Your task to perform on an android device: Open Youtube and go to the subscriptions tab Image 0: 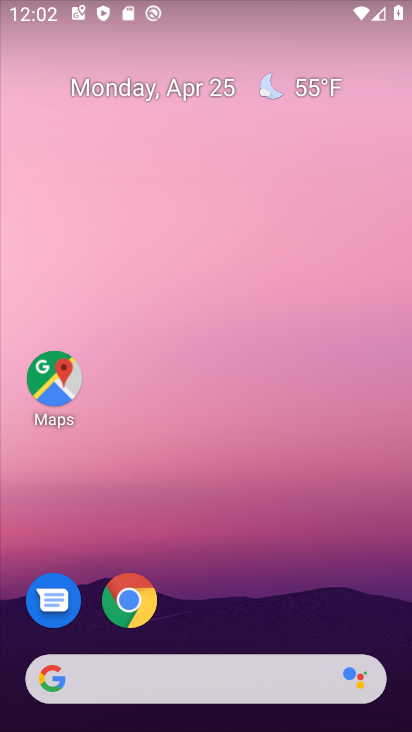
Step 0: drag from (243, 639) to (255, 193)
Your task to perform on an android device: Open Youtube and go to the subscriptions tab Image 1: 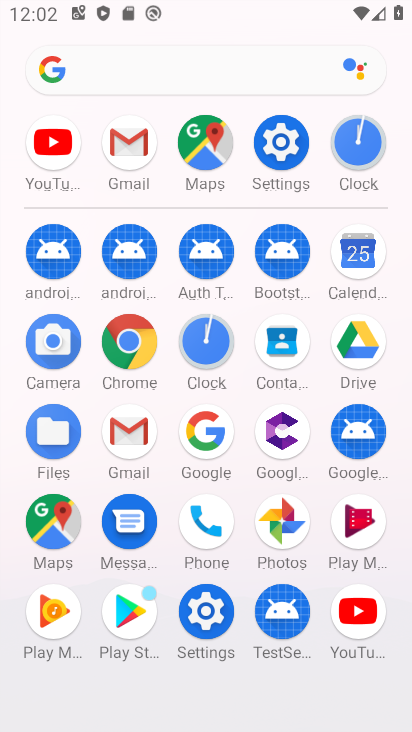
Step 1: click (368, 604)
Your task to perform on an android device: Open Youtube and go to the subscriptions tab Image 2: 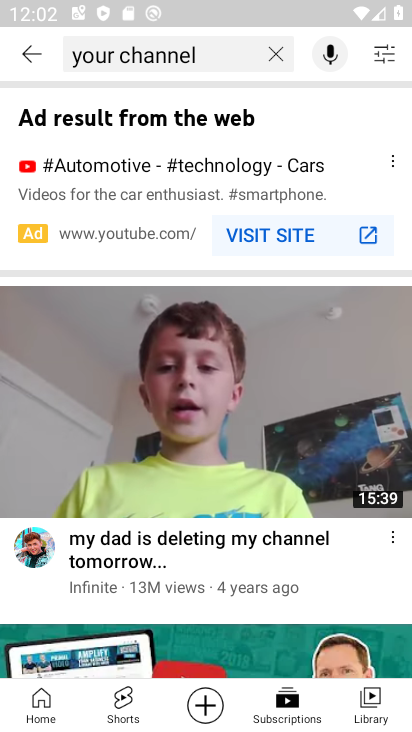
Step 2: click (287, 724)
Your task to perform on an android device: Open Youtube and go to the subscriptions tab Image 3: 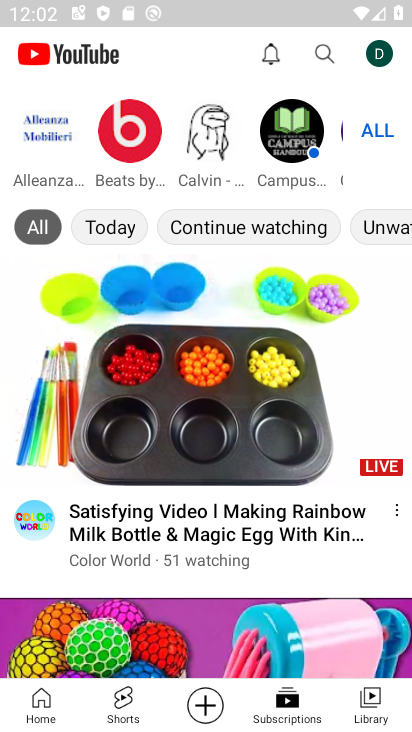
Step 3: task complete